Your task to perform on an android device: delete browsing data in the chrome app Image 0: 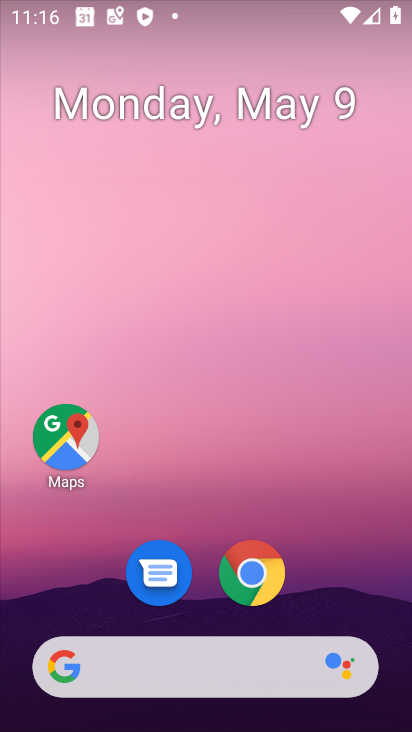
Step 0: drag from (190, 612) to (259, 183)
Your task to perform on an android device: delete browsing data in the chrome app Image 1: 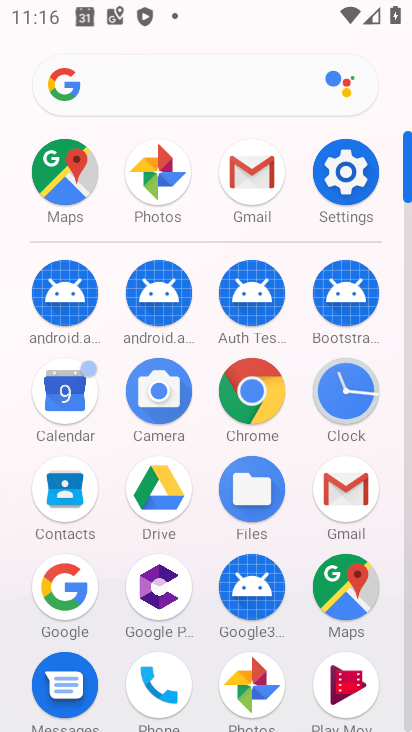
Step 1: click (252, 390)
Your task to perform on an android device: delete browsing data in the chrome app Image 2: 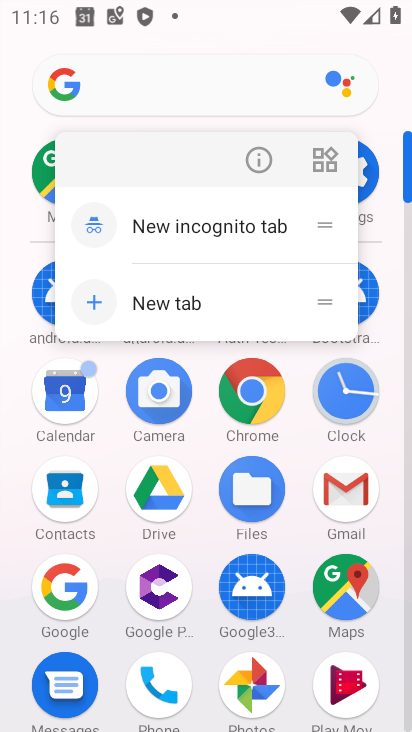
Step 2: click (265, 167)
Your task to perform on an android device: delete browsing data in the chrome app Image 3: 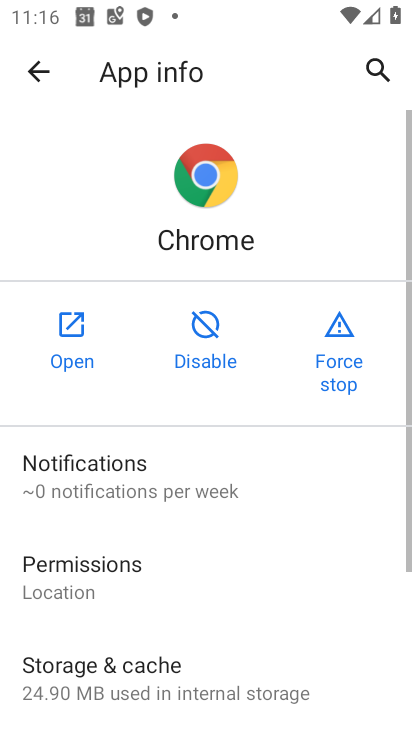
Step 3: click (71, 354)
Your task to perform on an android device: delete browsing data in the chrome app Image 4: 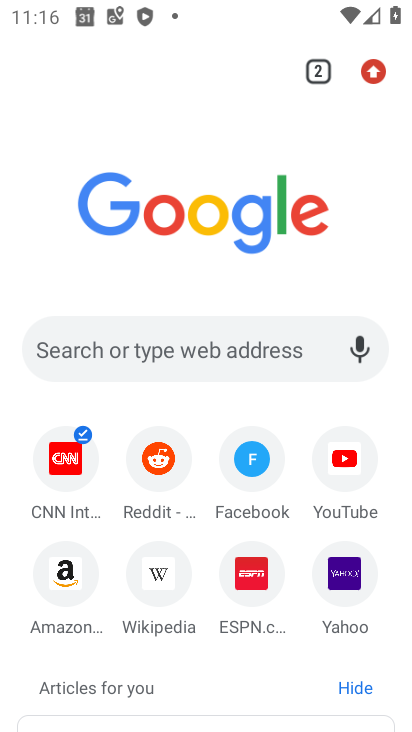
Step 4: drag from (200, 535) to (221, 321)
Your task to perform on an android device: delete browsing data in the chrome app Image 5: 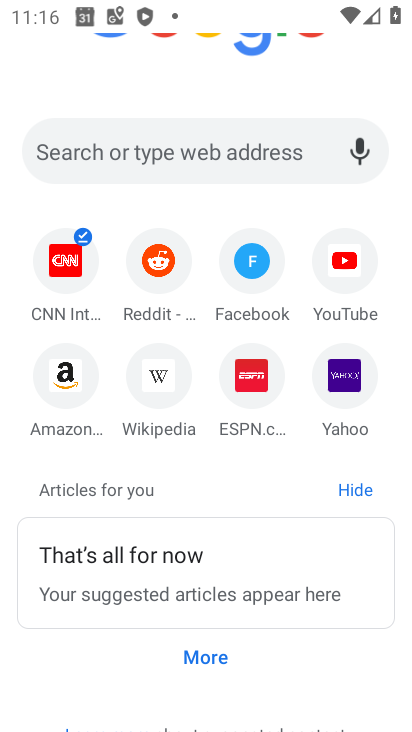
Step 5: drag from (204, 328) to (231, 709)
Your task to perform on an android device: delete browsing data in the chrome app Image 6: 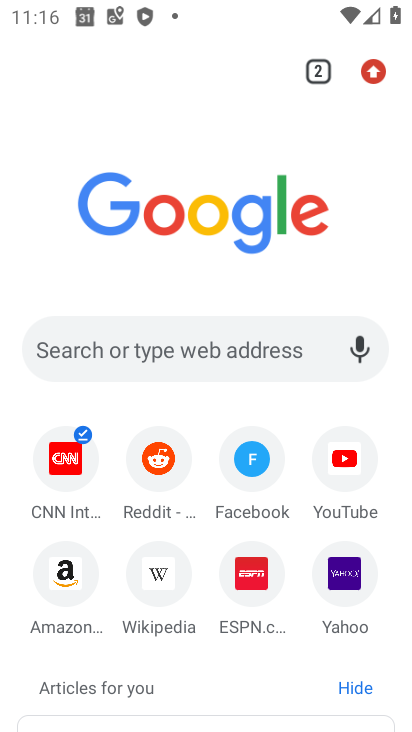
Step 6: drag from (380, 73) to (177, 497)
Your task to perform on an android device: delete browsing data in the chrome app Image 7: 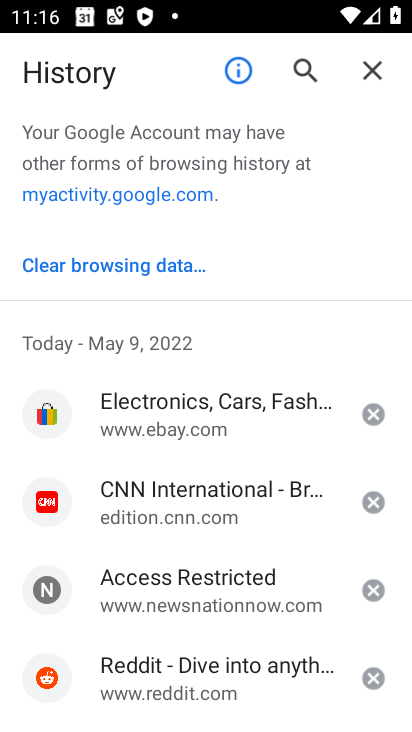
Step 7: drag from (192, 612) to (268, 264)
Your task to perform on an android device: delete browsing data in the chrome app Image 8: 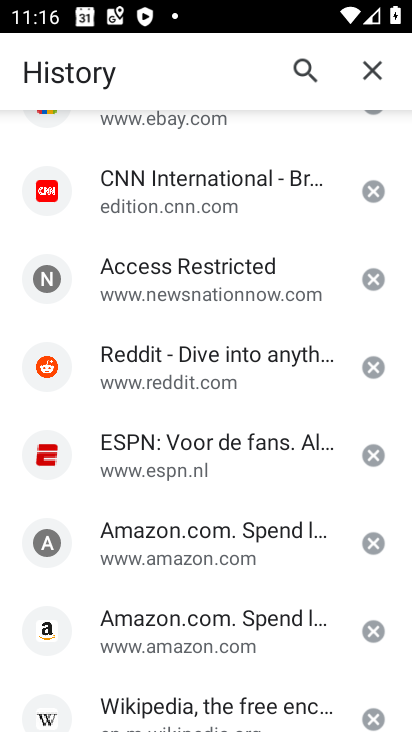
Step 8: drag from (180, 481) to (224, 254)
Your task to perform on an android device: delete browsing data in the chrome app Image 9: 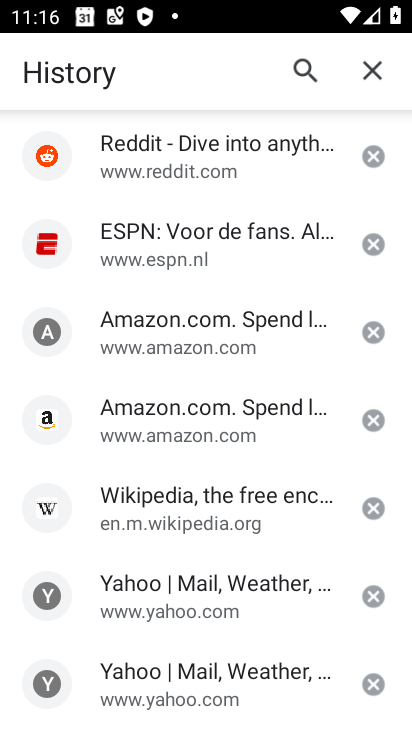
Step 9: drag from (224, 623) to (277, 702)
Your task to perform on an android device: delete browsing data in the chrome app Image 10: 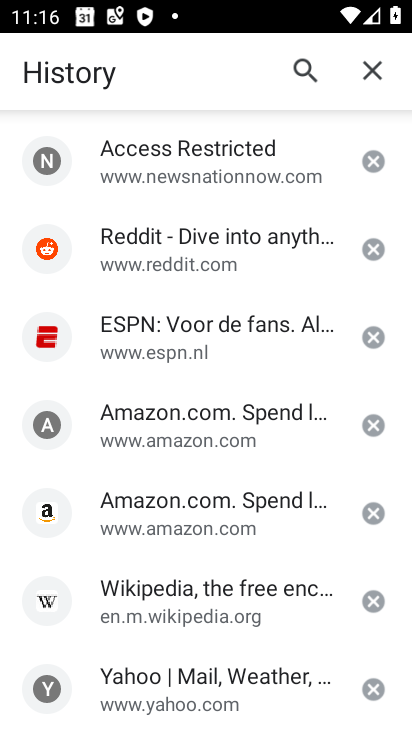
Step 10: drag from (203, 271) to (230, 696)
Your task to perform on an android device: delete browsing data in the chrome app Image 11: 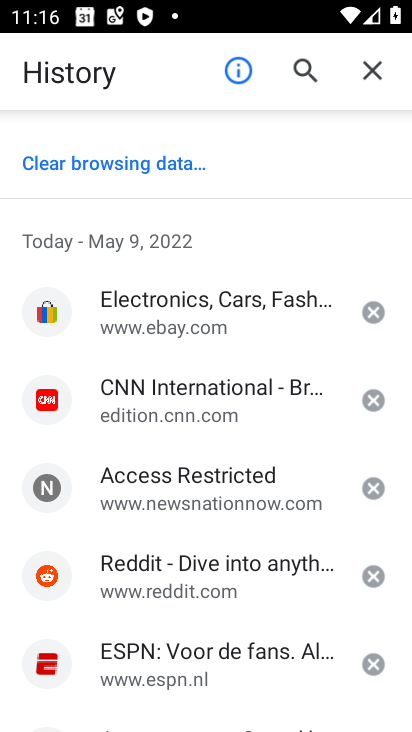
Step 11: click (107, 167)
Your task to perform on an android device: delete browsing data in the chrome app Image 12: 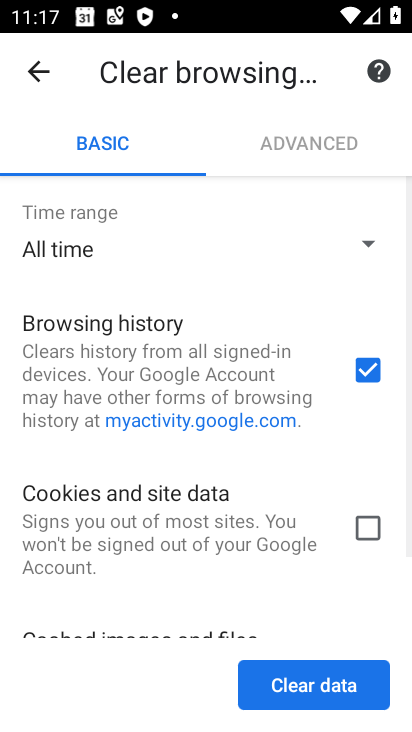
Step 12: click (368, 520)
Your task to perform on an android device: delete browsing data in the chrome app Image 13: 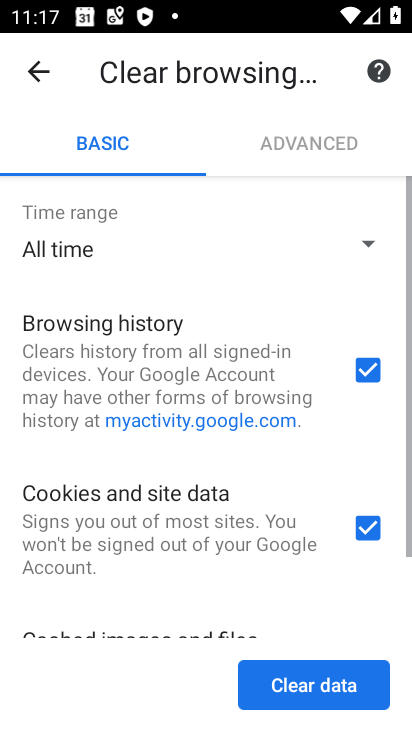
Step 13: click (303, 677)
Your task to perform on an android device: delete browsing data in the chrome app Image 14: 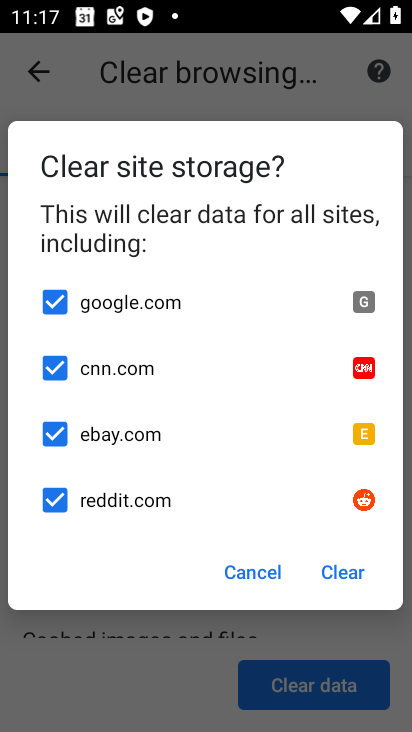
Step 14: click (337, 579)
Your task to perform on an android device: delete browsing data in the chrome app Image 15: 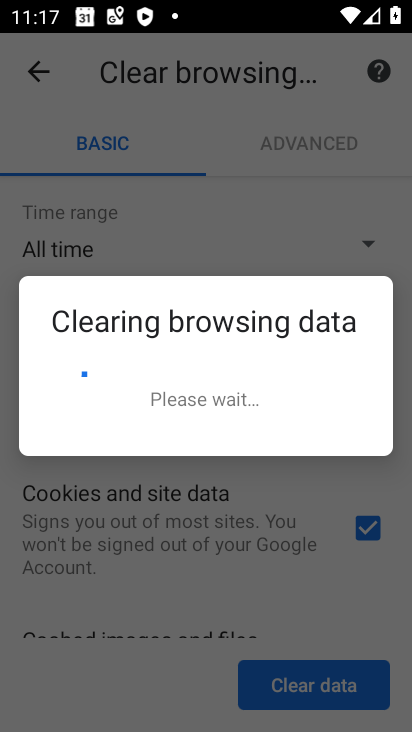
Step 15: click (220, 385)
Your task to perform on an android device: delete browsing data in the chrome app Image 16: 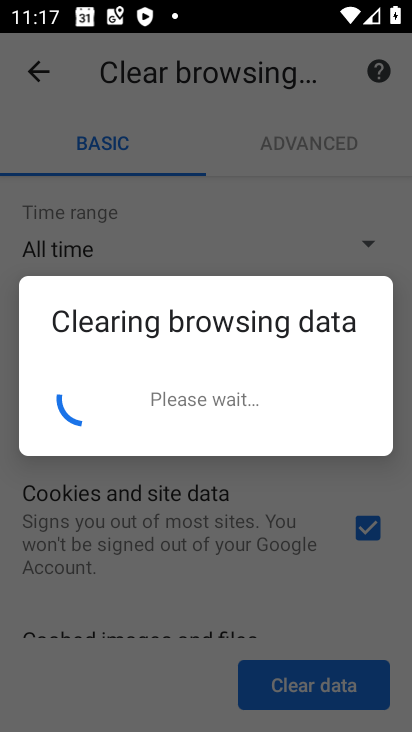
Step 16: task complete